Your task to perform on an android device: clear all cookies in the chrome app Image 0: 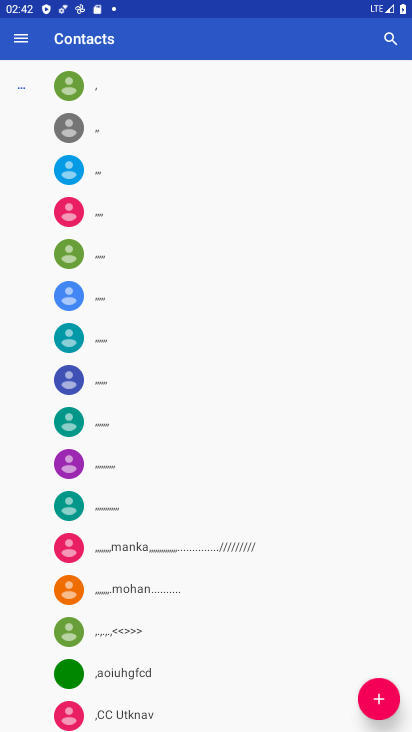
Step 0: press home button
Your task to perform on an android device: clear all cookies in the chrome app Image 1: 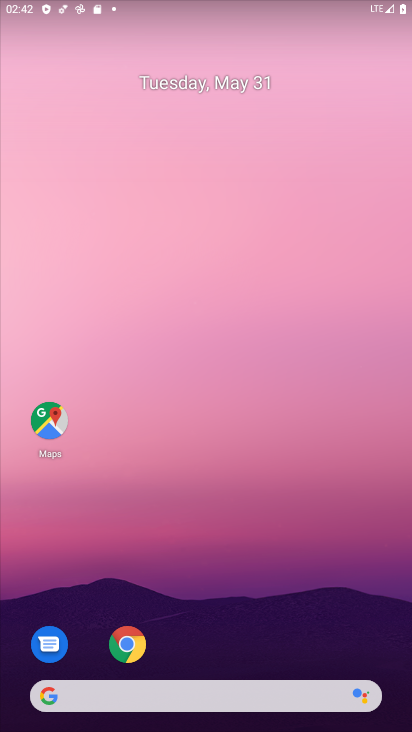
Step 1: drag from (277, 553) to (223, 183)
Your task to perform on an android device: clear all cookies in the chrome app Image 2: 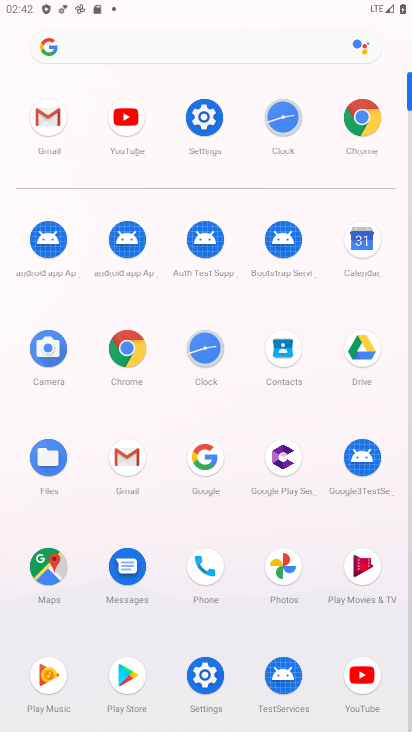
Step 2: click (129, 355)
Your task to perform on an android device: clear all cookies in the chrome app Image 3: 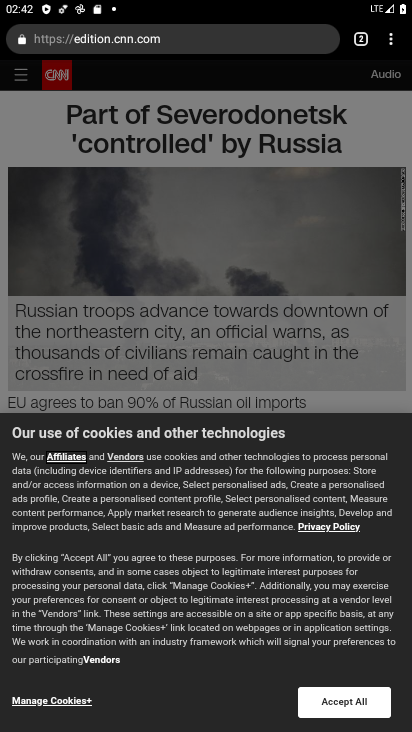
Step 3: task complete